Your task to perform on an android device: Open Google Maps Image 0: 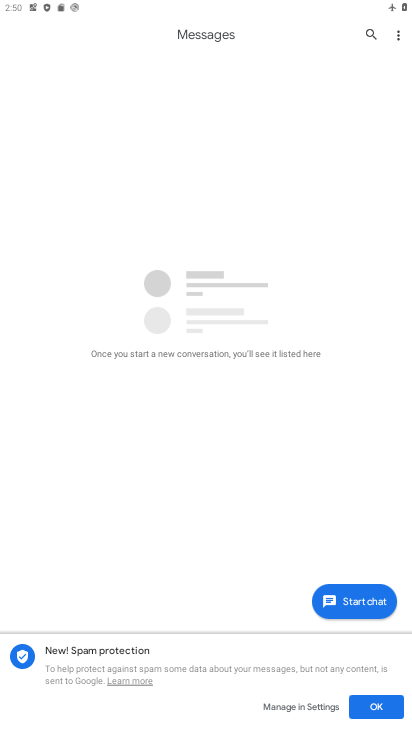
Step 0: press home button
Your task to perform on an android device: Open Google Maps Image 1: 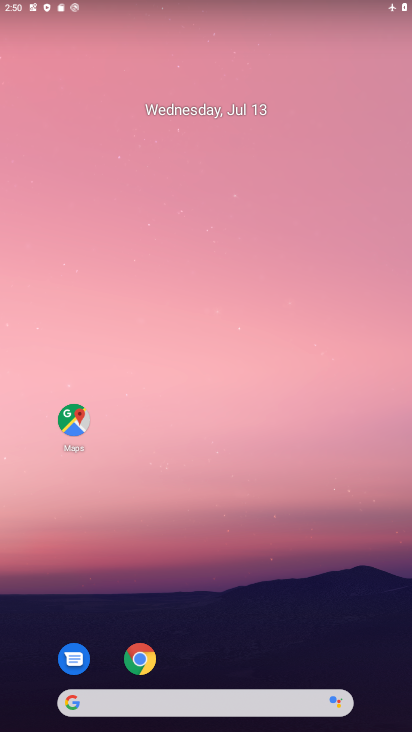
Step 1: click (71, 417)
Your task to perform on an android device: Open Google Maps Image 2: 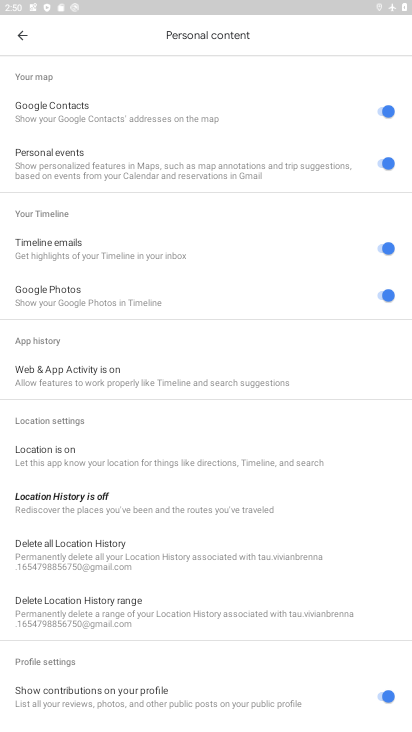
Step 2: task complete